Your task to perform on an android device: Play the last video I watched on Youtube Image 0: 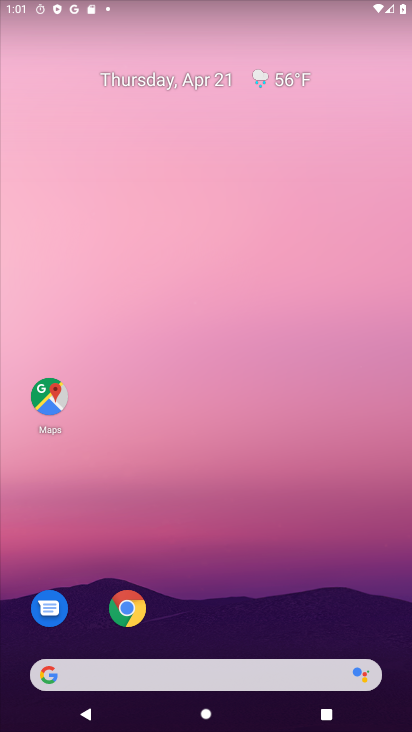
Step 0: drag from (248, 600) to (234, 75)
Your task to perform on an android device: Play the last video I watched on Youtube Image 1: 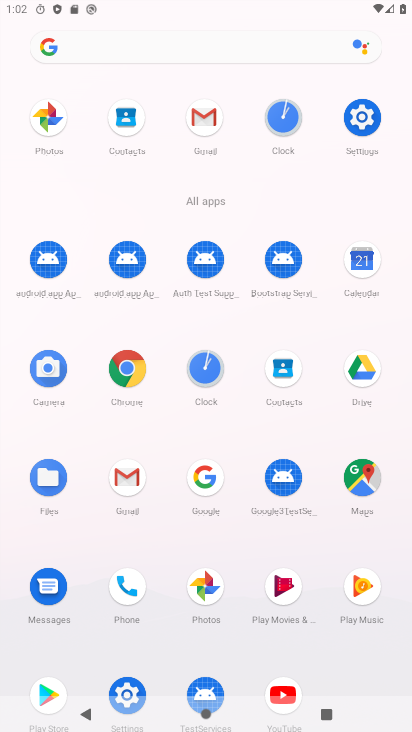
Step 1: drag from (294, 630) to (303, 279)
Your task to perform on an android device: Play the last video I watched on Youtube Image 2: 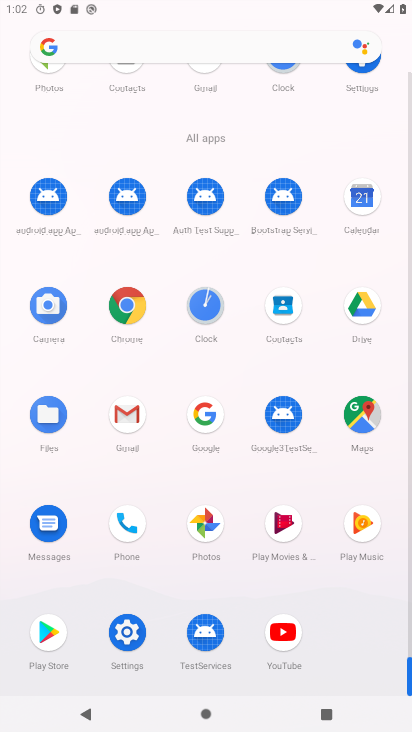
Step 2: click (286, 626)
Your task to perform on an android device: Play the last video I watched on Youtube Image 3: 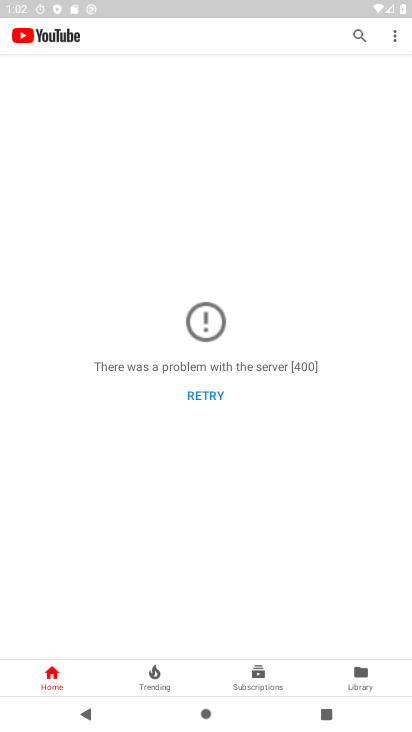
Step 3: click (210, 388)
Your task to perform on an android device: Play the last video I watched on Youtube Image 4: 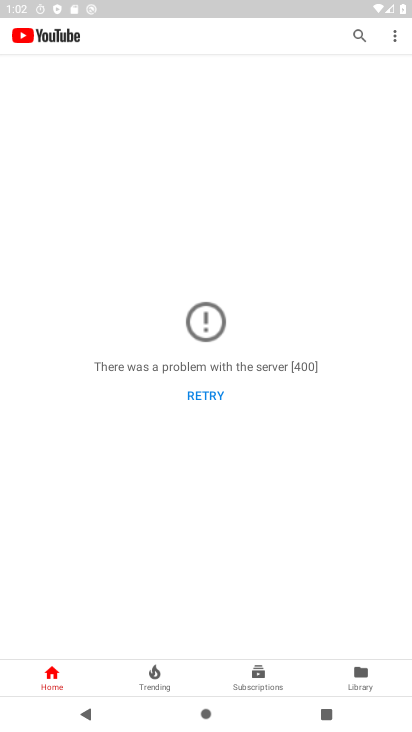
Step 4: click (213, 391)
Your task to perform on an android device: Play the last video I watched on Youtube Image 5: 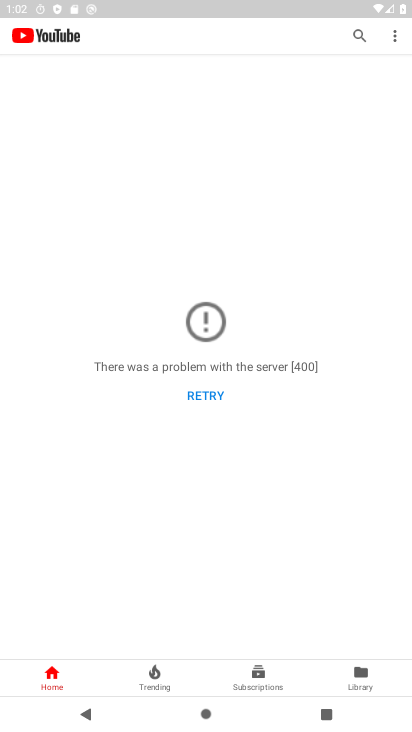
Step 5: click (213, 390)
Your task to perform on an android device: Play the last video I watched on Youtube Image 6: 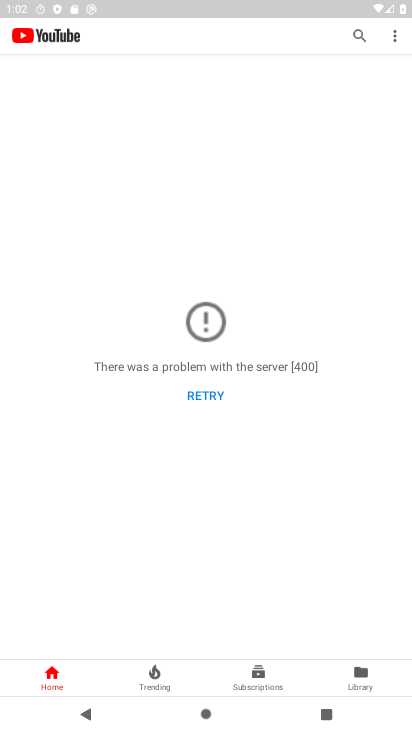
Step 6: click (210, 393)
Your task to perform on an android device: Play the last video I watched on Youtube Image 7: 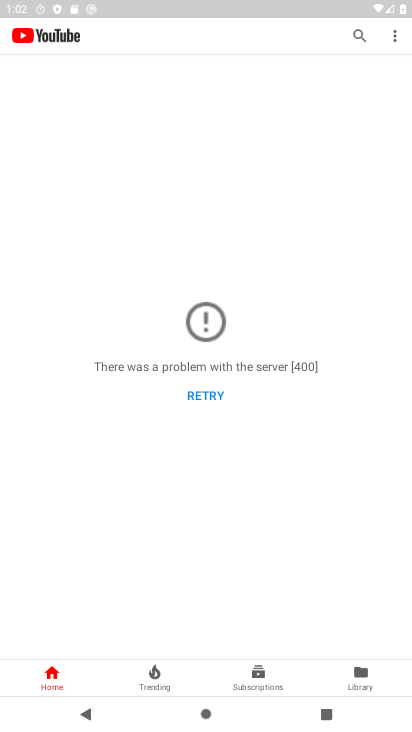
Step 7: click (362, 675)
Your task to perform on an android device: Play the last video I watched on Youtube Image 8: 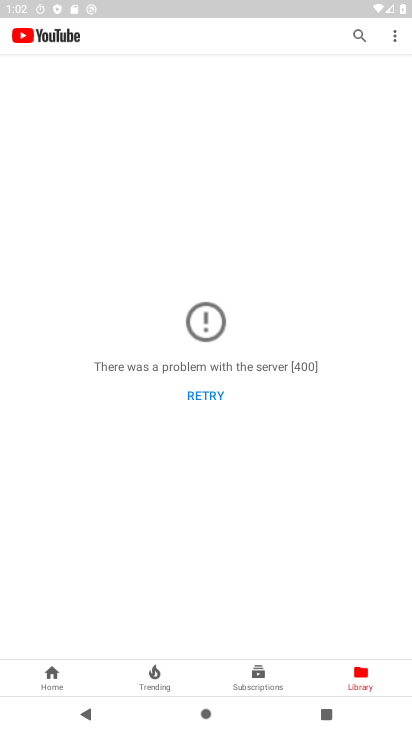
Step 8: click (362, 671)
Your task to perform on an android device: Play the last video I watched on Youtube Image 9: 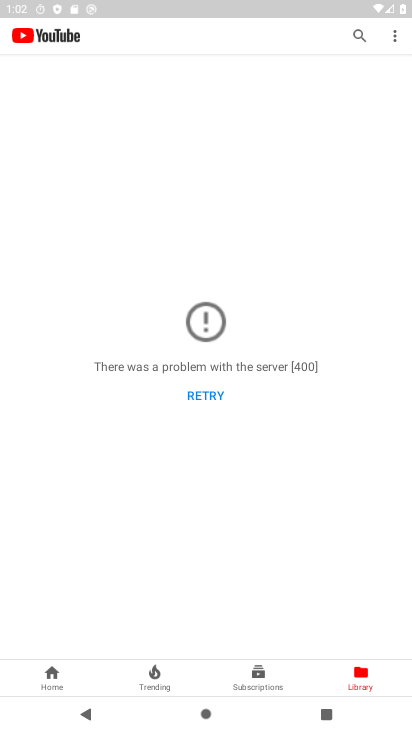
Step 9: click (213, 390)
Your task to perform on an android device: Play the last video I watched on Youtube Image 10: 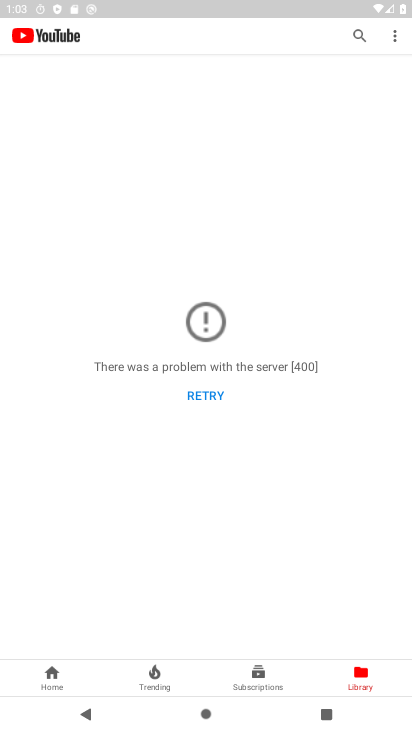
Step 10: task complete